Your task to perform on an android device: turn off wifi Image 0: 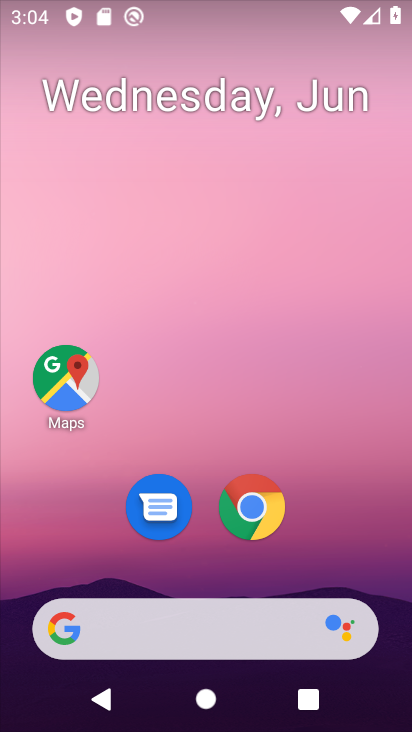
Step 0: drag from (217, 13) to (140, 598)
Your task to perform on an android device: turn off wifi Image 1: 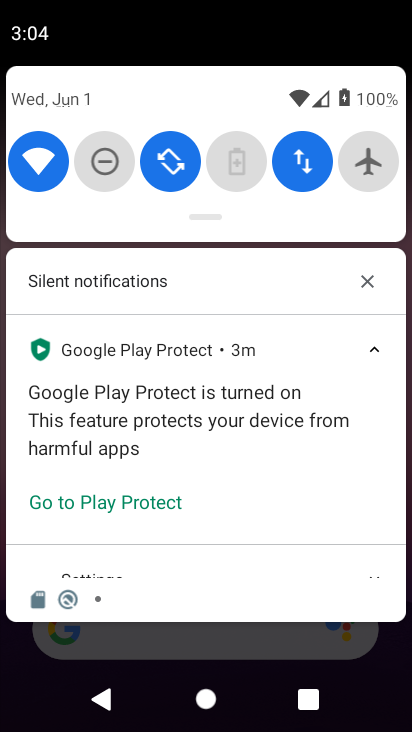
Step 1: click (42, 167)
Your task to perform on an android device: turn off wifi Image 2: 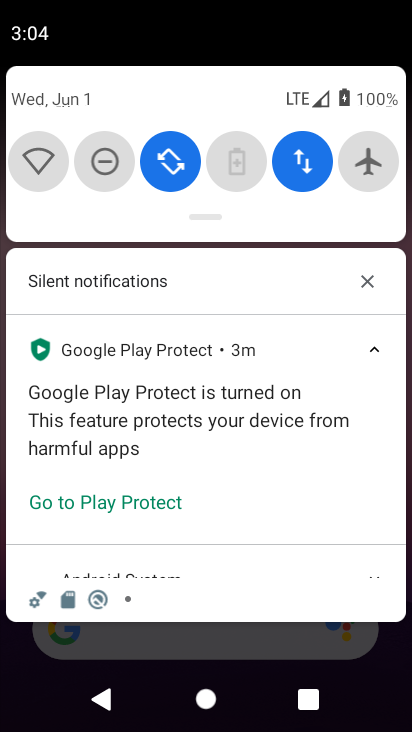
Step 2: task complete